Your task to perform on an android device: check out phone information Image 0: 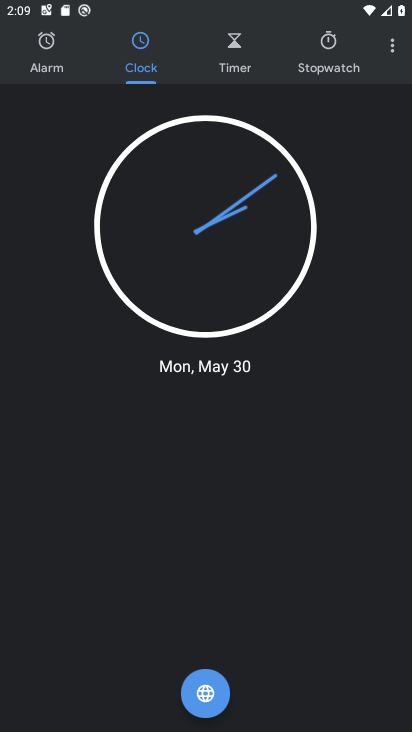
Step 0: press home button
Your task to perform on an android device: check out phone information Image 1: 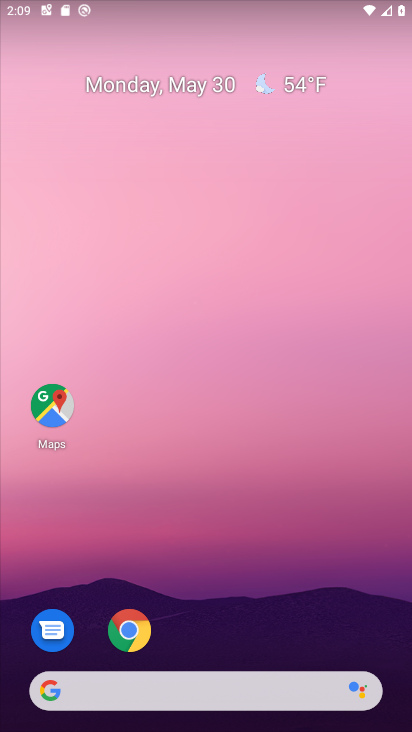
Step 1: drag from (281, 395) to (347, 45)
Your task to perform on an android device: check out phone information Image 2: 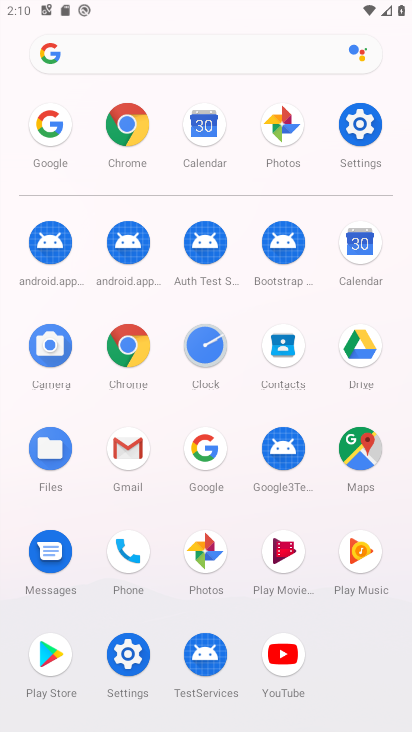
Step 2: click (374, 116)
Your task to perform on an android device: check out phone information Image 3: 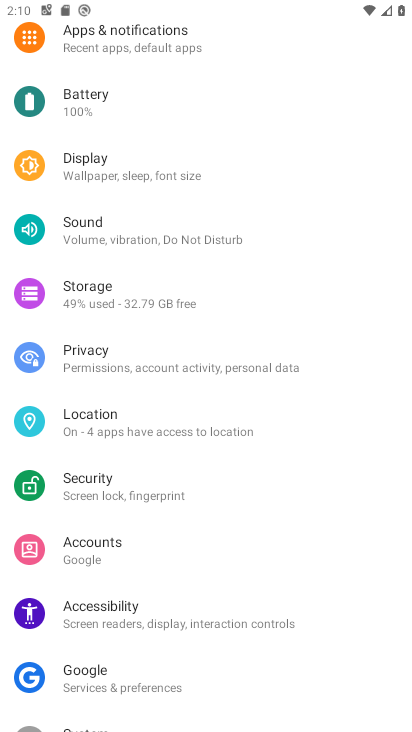
Step 3: drag from (220, 645) to (314, 105)
Your task to perform on an android device: check out phone information Image 4: 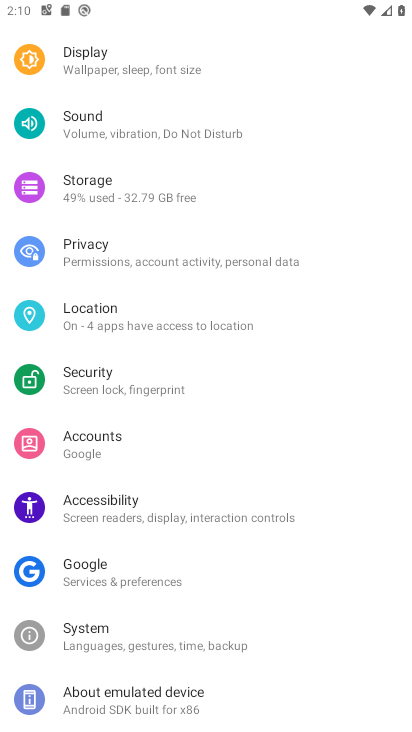
Step 4: click (189, 699)
Your task to perform on an android device: check out phone information Image 5: 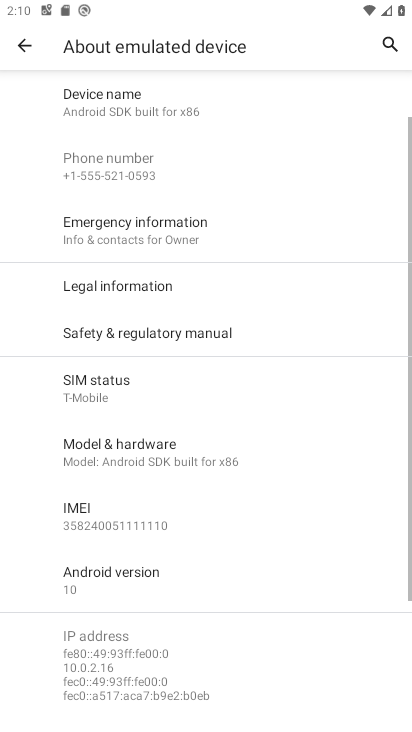
Step 5: task complete